Your task to perform on an android device: clear history in the chrome app Image 0: 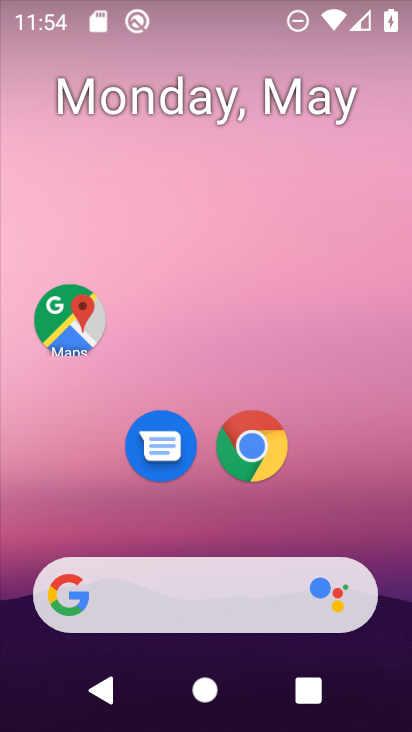
Step 0: click (250, 447)
Your task to perform on an android device: clear history in the chrome app Image 1: 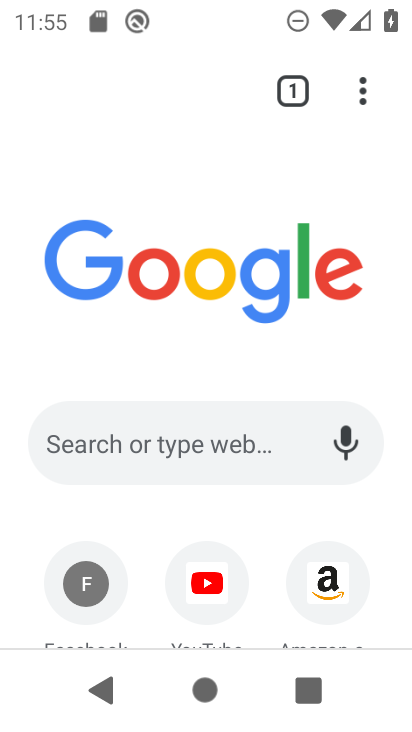
Step 1: click (363, 86)
Your task to perform on an android device: clear history in the chrome app Image 2: 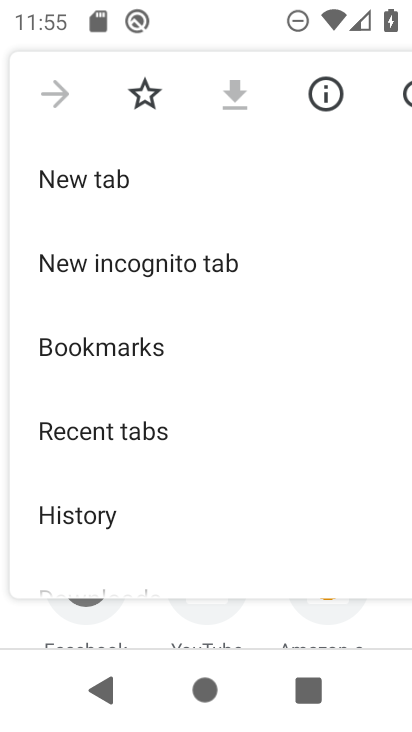
Step 2: click (73, 513)
Your task to perform on an android device: clear history in the chrome app Image 3: 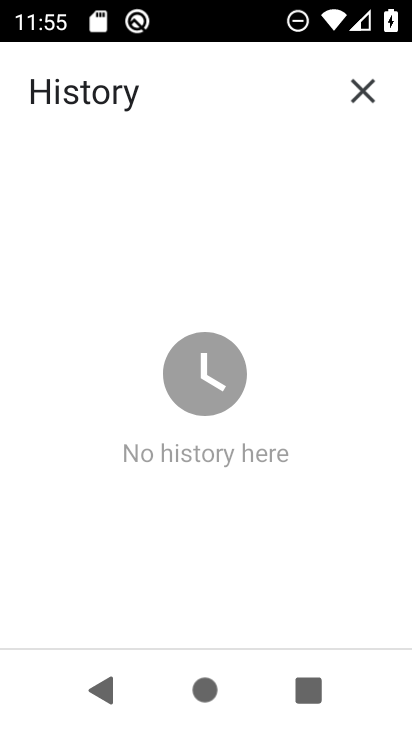
Step 3: task complete